Your task to perform on an android device: Go to calendar. Show me events next week Image 0: 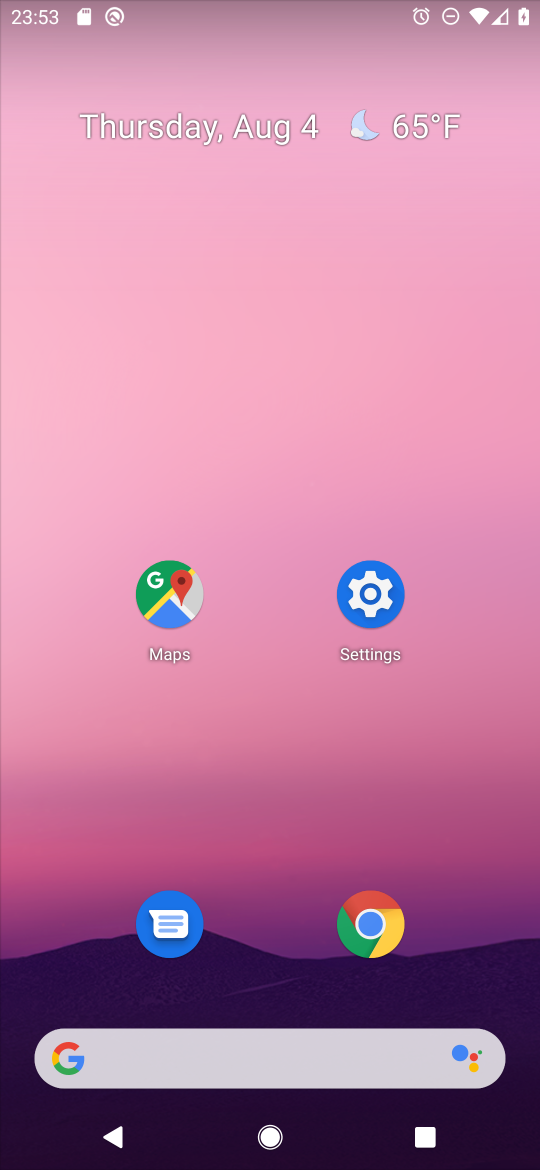
Step 0: press home button
Your task to perform on an android device: Go to calendar. Show me events next week Image 1: 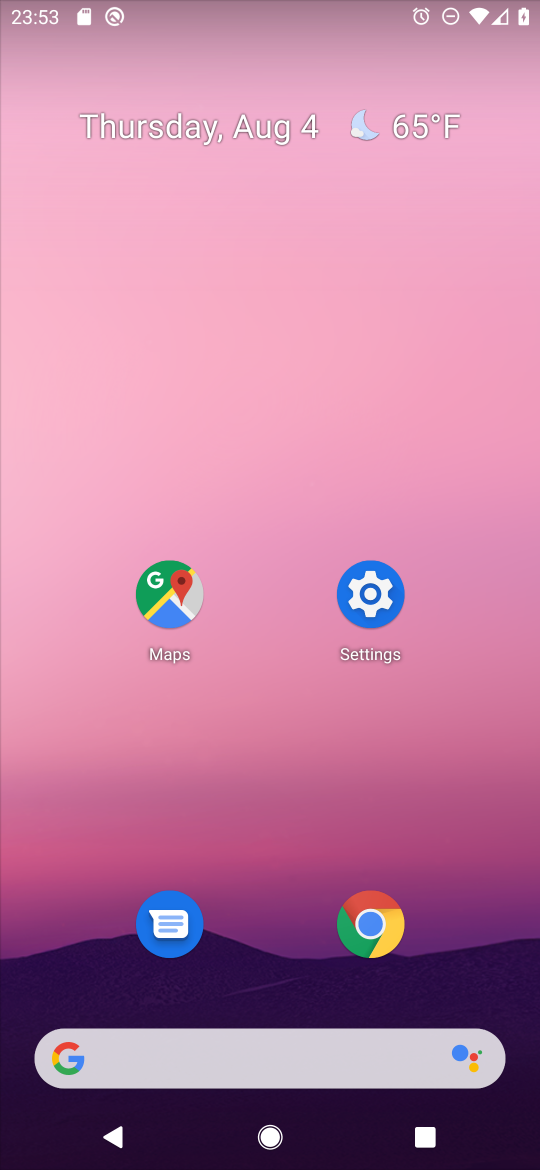
Step 1: drag from (250, 1065) to (500, 78)
Your task to perform on an android device: Go to calendar. Show me events next week Image 2: 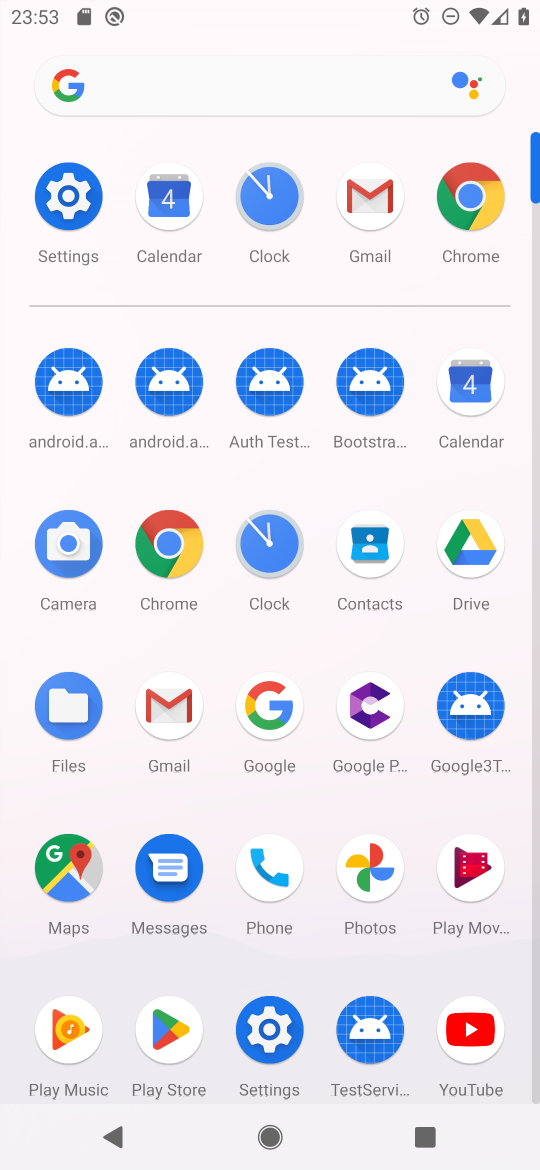
Step 2: click (166, 197)
Your task to perform on an android device: Go to calendar. Show me events next week Image 3: 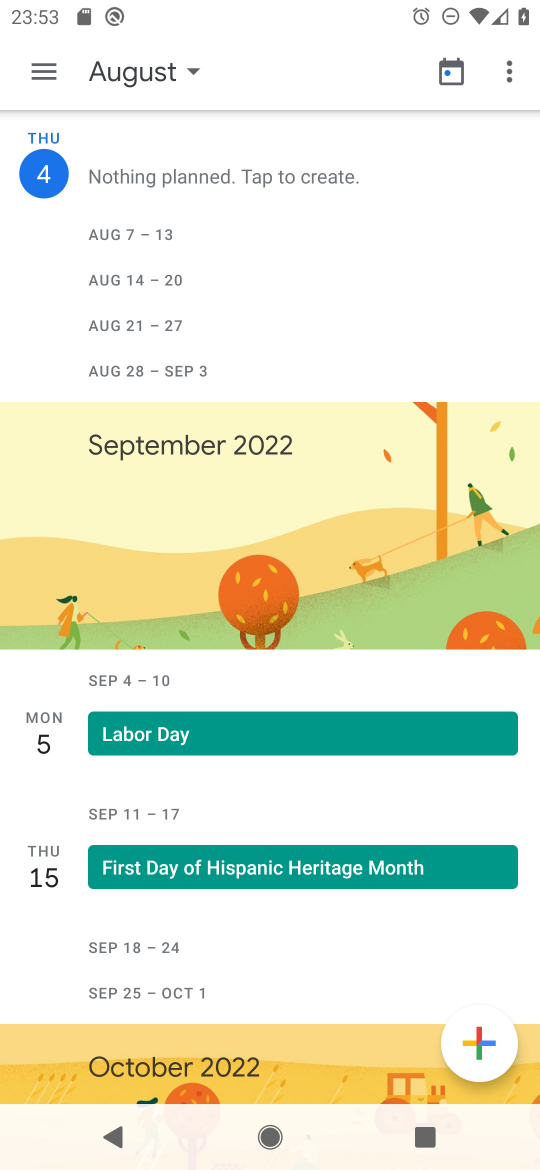
Step 3: click (139, 64)
Your task to perform on an android device: Go to calendar. Show me events next week Image 4: 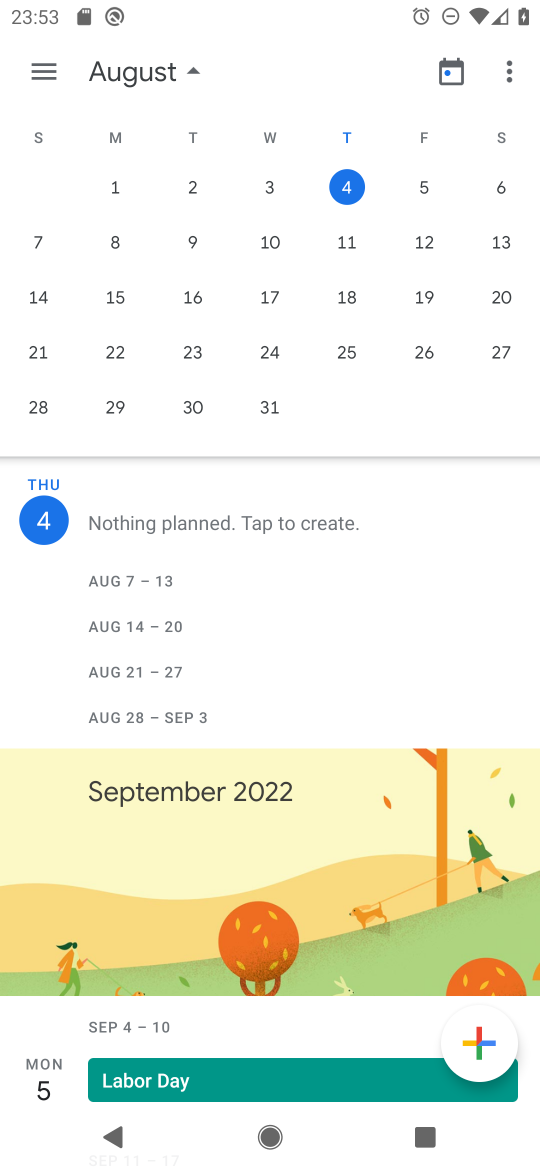
Step 4: click (40, 240)
Your task to perform on an android device: Go to calendar. Show me events next week Image 5: 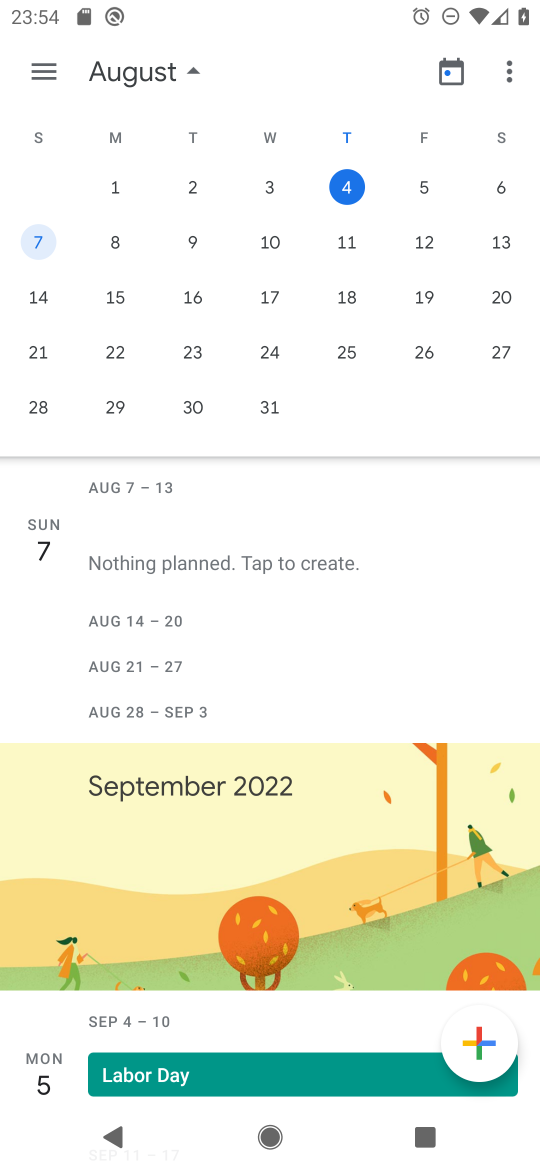
Step 5: click (51, 69)
Your task to perform on an android device: Go to calendar. Show me events next week Image 6: 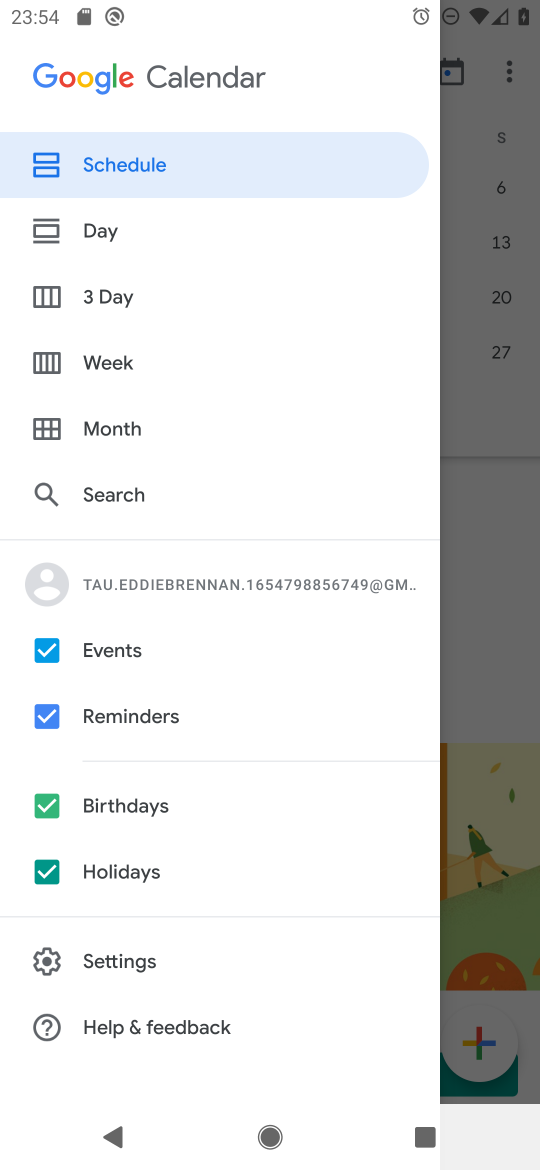
Step 6: click (115, 365)
Your task to perform on an android device: Go to calendar. Show me events next week Image 7: 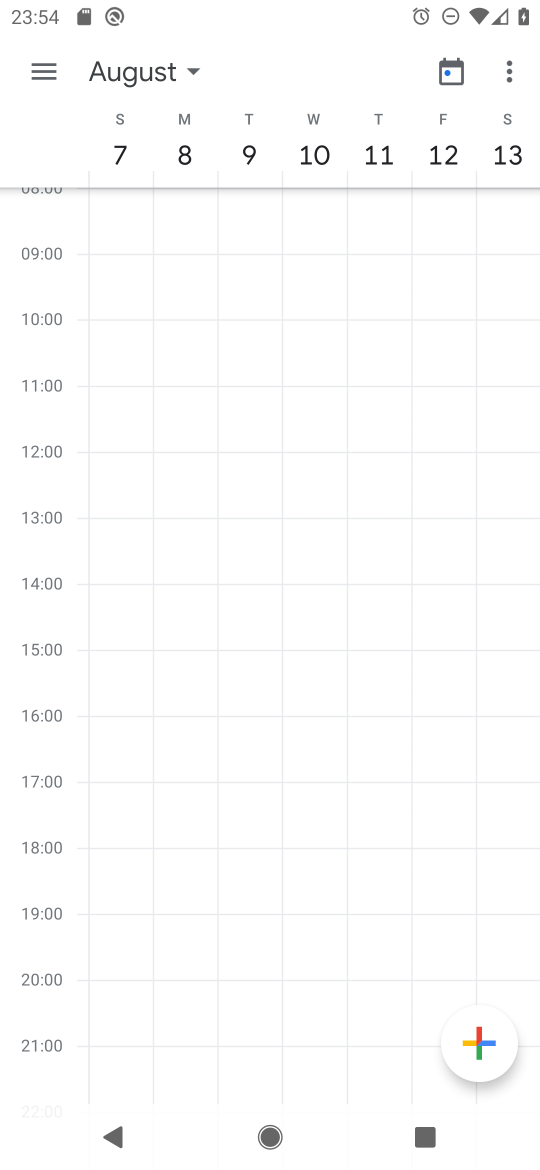
Step 7: task complete